Your task to perform on an android device: make emails show in primary in the gmail app Image 0: 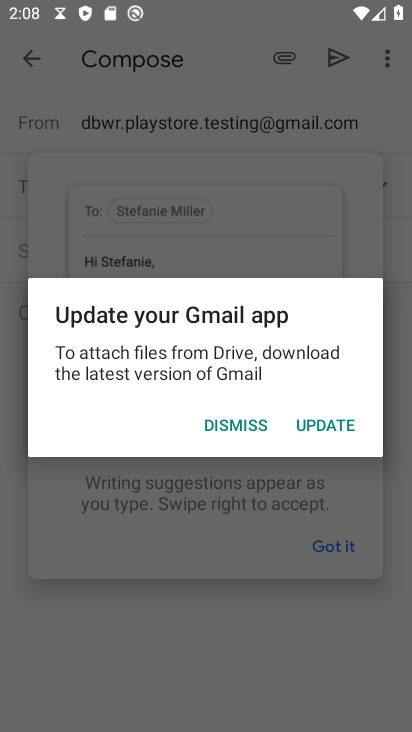
Step 0: press home button
Your task to perform on an android device: make emails show in primary in the gmail app Image 1: 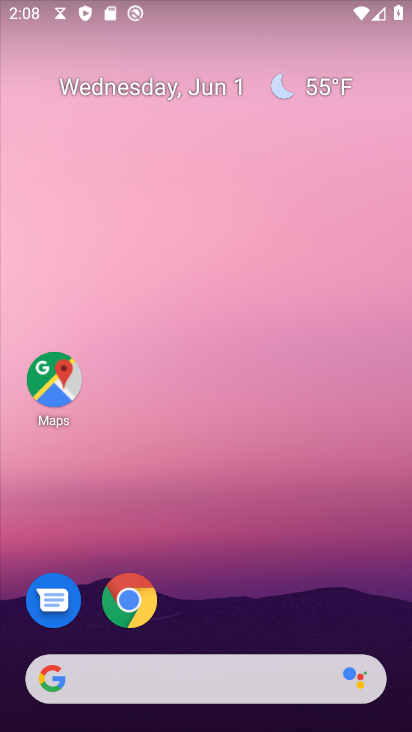
Step 1: drag from (314, 605) to (221, 232)
Your task to perform on an android device: make emails show in primary in the gmail app Image 2: 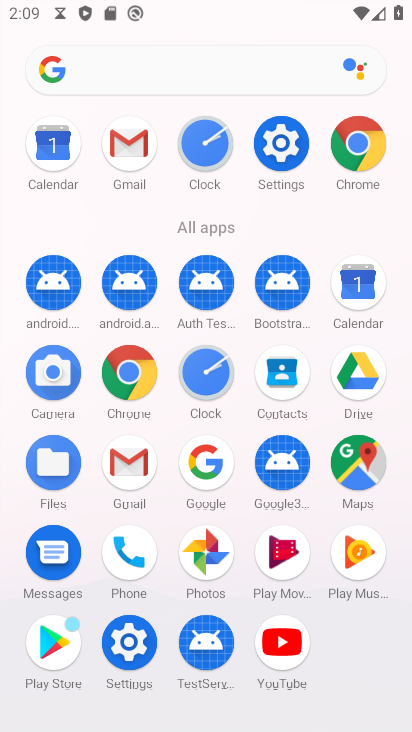
Step 2: click (141, 133)
Your task to perform on an android device: make emails show in primary in the gmail app Image 3: 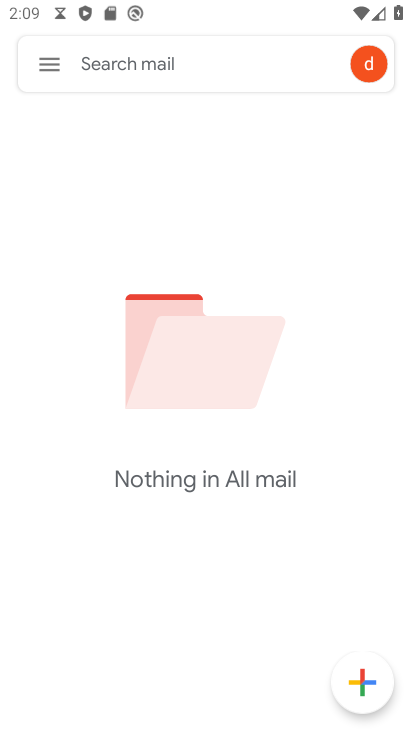
Step 3: click (54, 59)
Your task to perform on an android device: make emails show in primary in the gmail app Image 4: 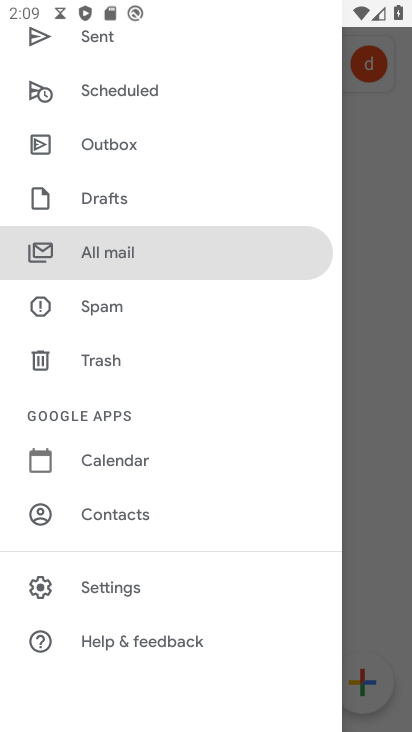
Step 4: click (173, 575)
Your task to perform on an android device: make emails show in primary in the gmail app Image 5: 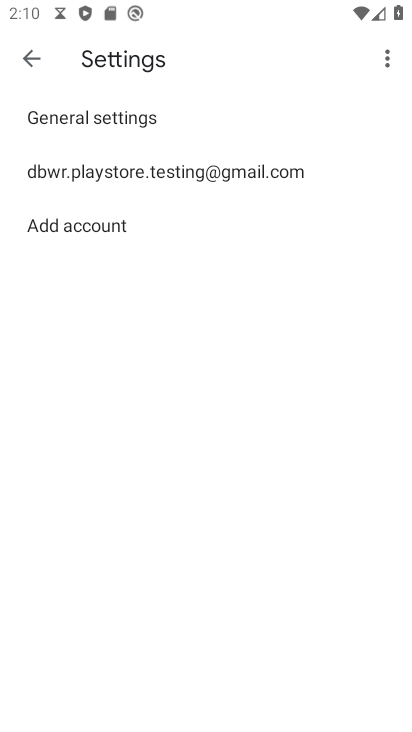
Step 5: click (202, 178)
Your task to perform on an android device: make emails show in primary in the gmail app Image 6: 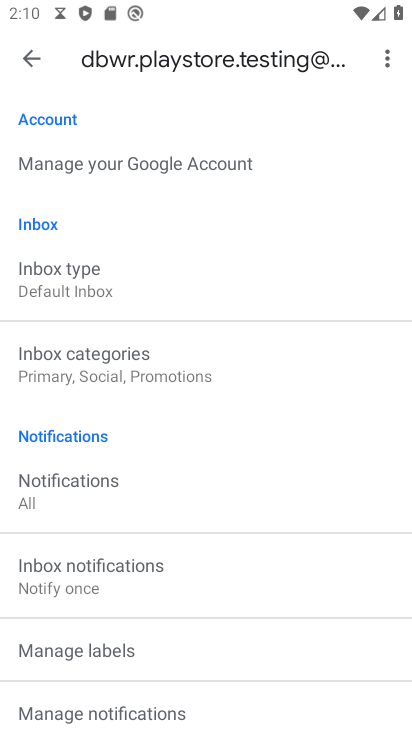
Step 6: task complete